Your task to perform on an android device: Open Google Maps Image 0: 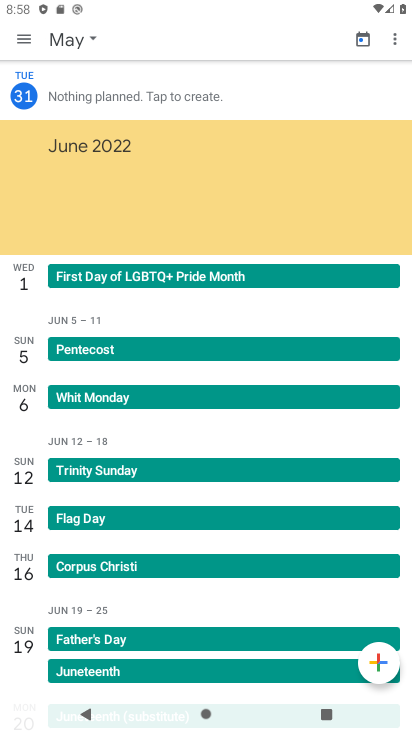
Step 0: click (183, 668)
Your task to perform on an android device: Open Google Maps Image 1: 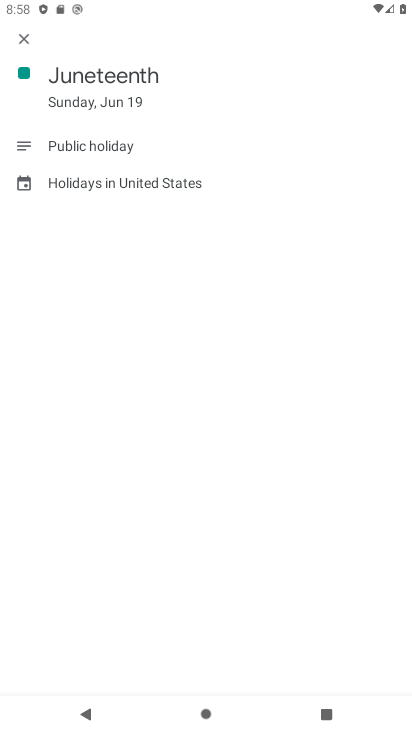
Step 1: press home button
Your task to perform on an android device: Open Google Maps Image 2: 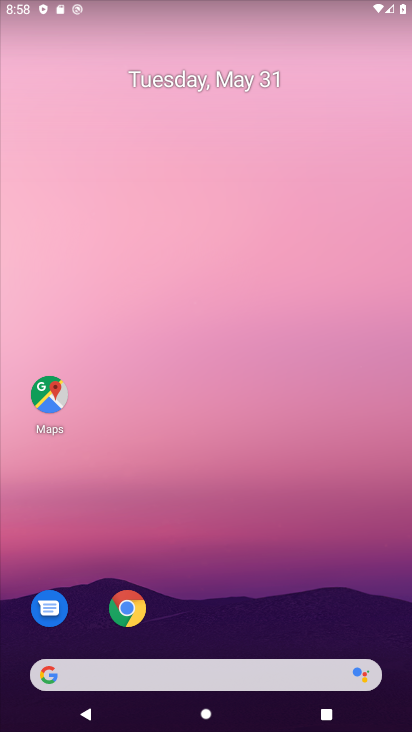
Step 2: click (39, 392)
Your task to perform on an android device: Open Google Maps Image 3: 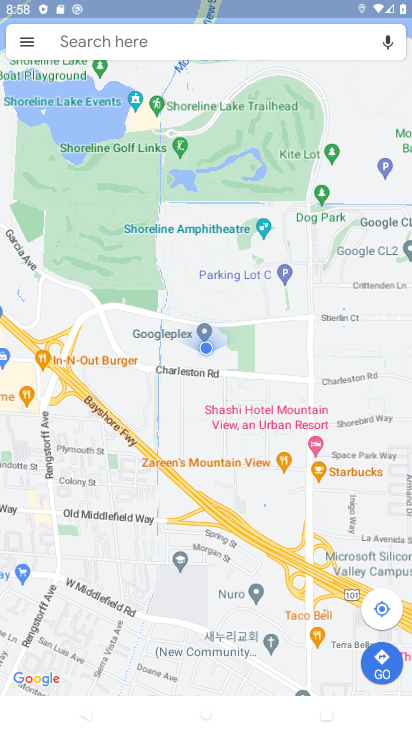
Step 3: task complete